Your task to perform on an android device: check data usage Image 0: 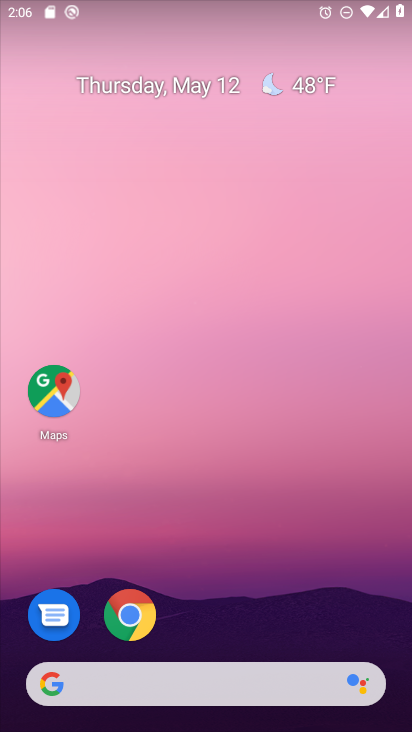
Step 0: drag from (230, 701) to (207, 0)
Your task to perform on an android device: check data usage Image 1: 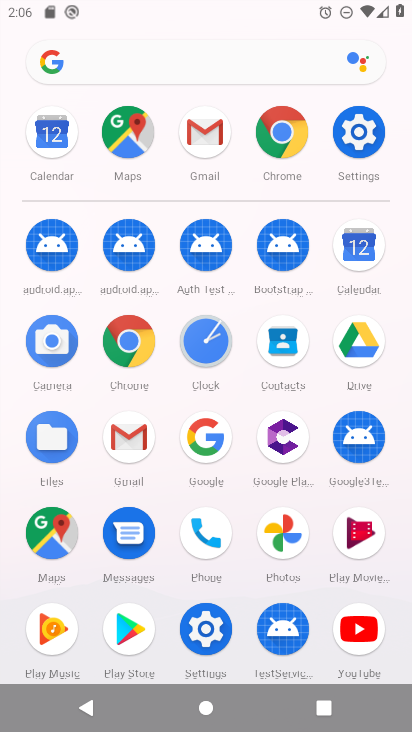
Step 1: click (364, 133)
Your task to perform on an android device: check data usage Image 2: 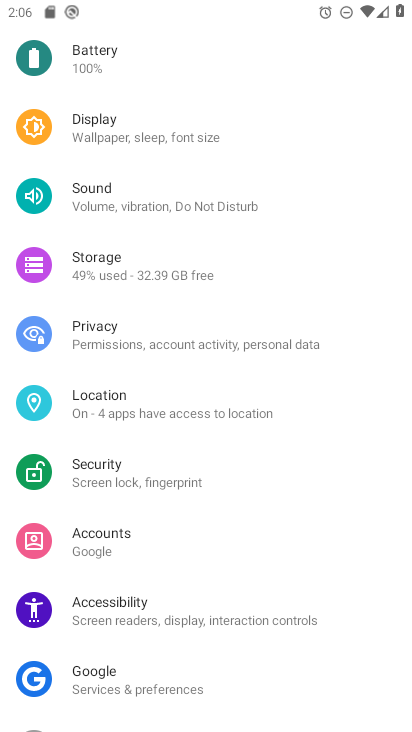
Step 2: drag from (204, 262) to (135, 700)
Your task to perform on an android device: check data usage Image 3: 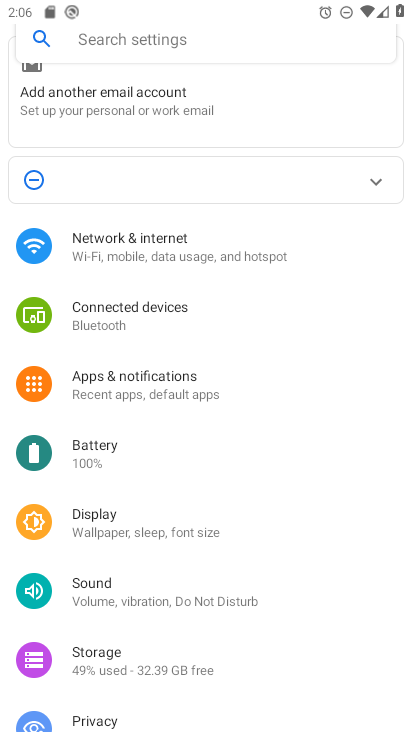
Step 3: click (195, 242)
Your task to perform on an android device: check data usage Image 4: 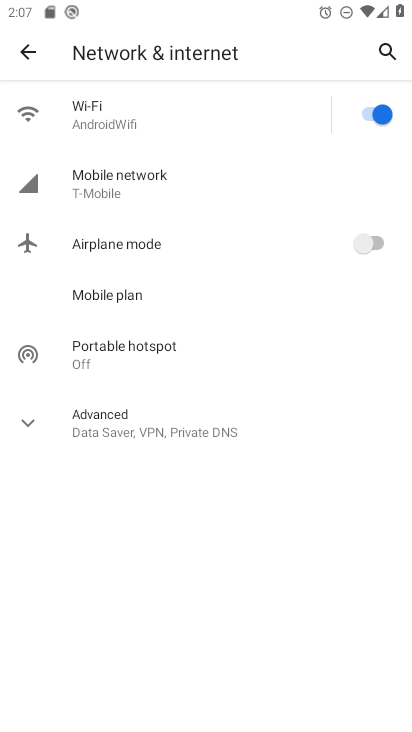
Step 4: click (158, 185)
Your task to perform on an android device: check data usage Image 5: 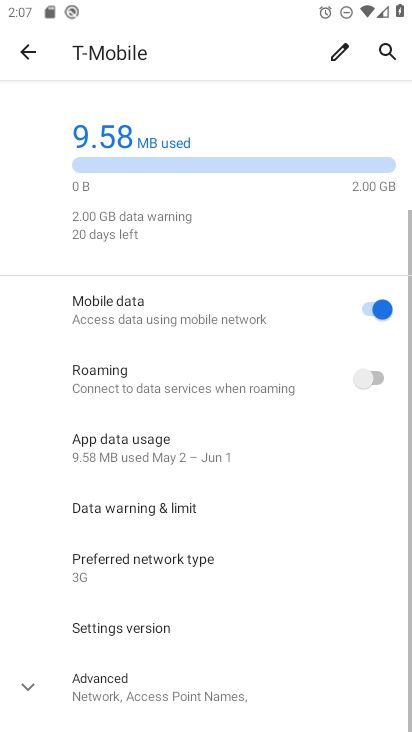
Step 5: drag from (197, 587) to (202, 104)
Your task to perform on an android device: check data usage Image 6: 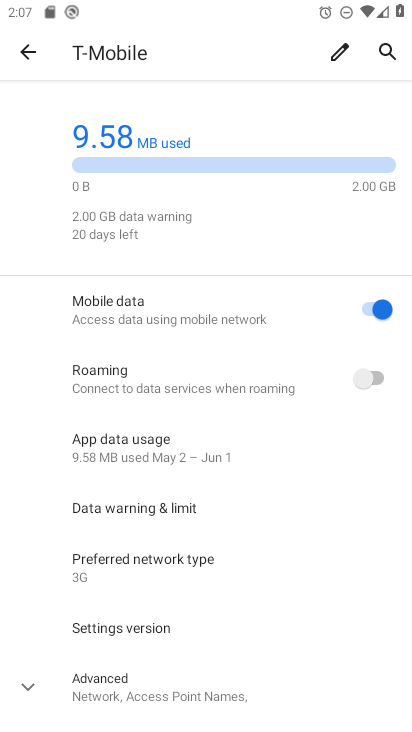
Step 6: click (168, 444)
Your task to perform on an android device: check data usage Image 7: 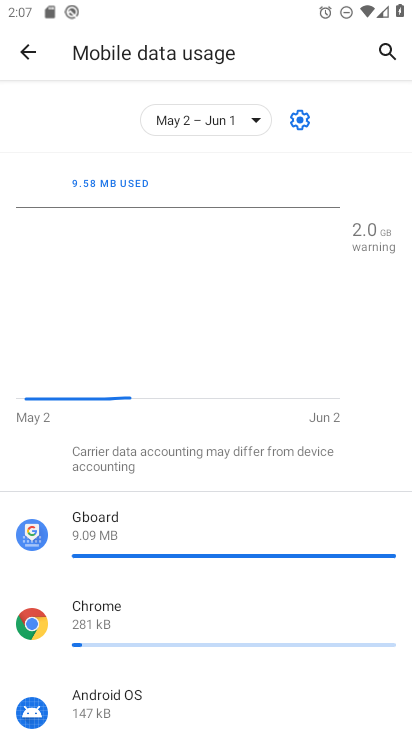
Step 7: task complete